Your task to perform on an android device: Search for a new water heater on Home Depot Image 0: 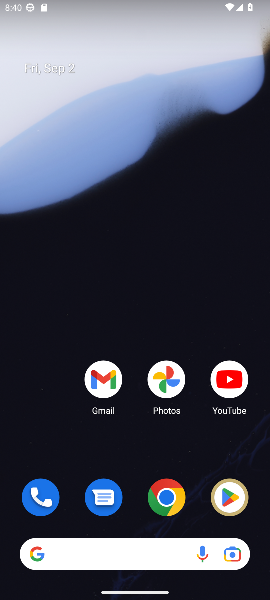
Step 0: click (165, 499)
Your task to perform on an android device: Search for a new water heater on Home Depot Image 1: 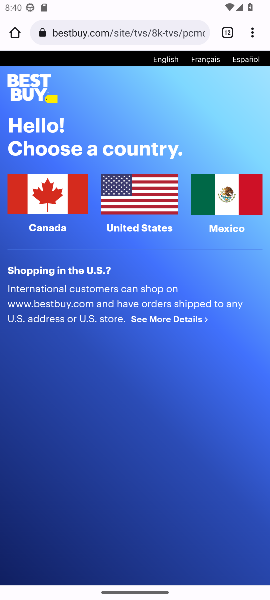
Step 1: click (114, 29)
Your task to perform on an android device: Search for a new water heater on Home Depot Image 2: 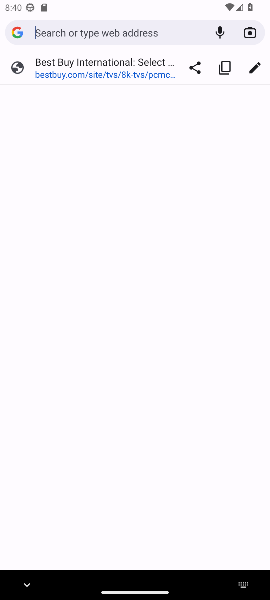
Step 2: type " a new water heater on Home Depot"
Your task to perform on an android device: Search for a new water heater on Home Depot Image 3: 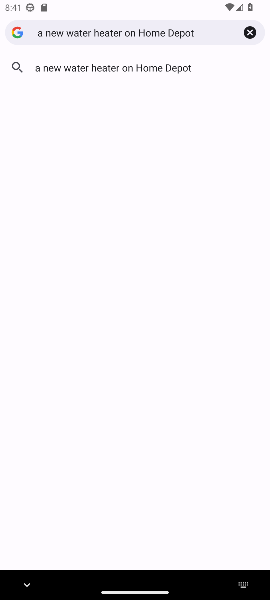
Step 3: click (150, 69)
Your task to perform on an android device: Search for a new water heater on Home Depot Image 4: 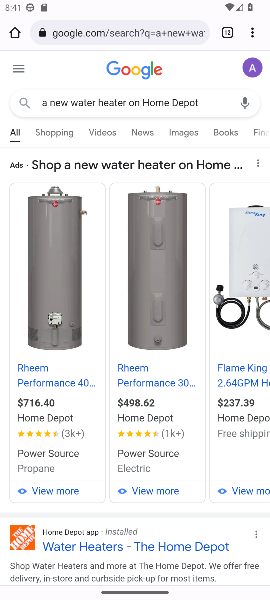
Step 4: task complete